Your task to perform on an android device: Search for pizza restaurants on Maps Image 0: 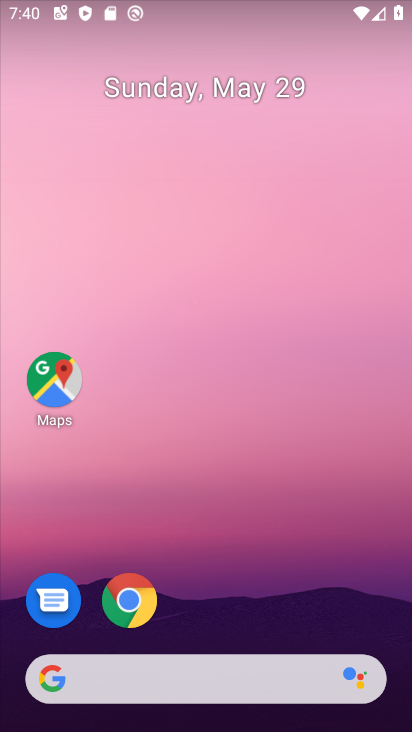
Step 0: click (69, 392)
Your task to perform on an android device: Search for pizza restaurants on Maps Image 1: 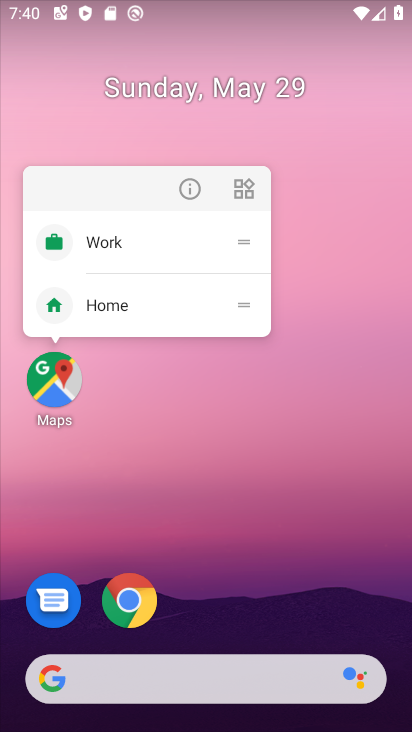
Step 1: click (76, 384)
Your task to perform on an android device: Search for pizza restaurants on Maps Image 2: 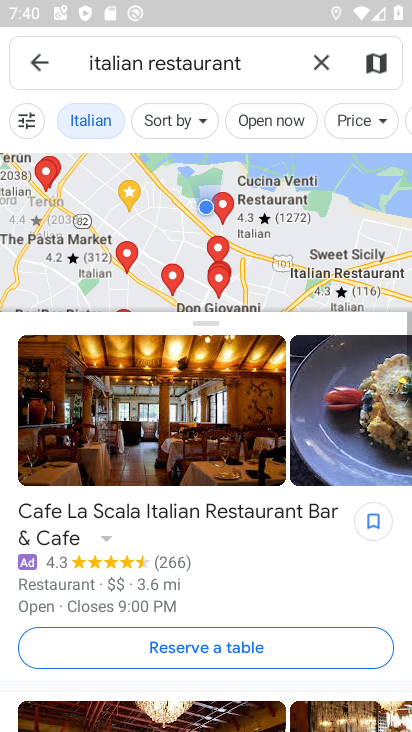
Step 2: click (322, 61)
Your task to perform on an android device: Search for pizza restaurants on Maps Image 3: 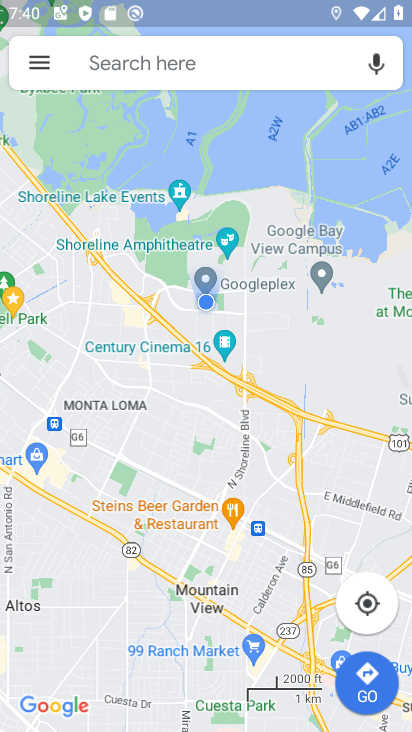
Step 3: click (223, 68)
Your task to perform on an android device: Search for pizza restaurants on Maps Image 4: 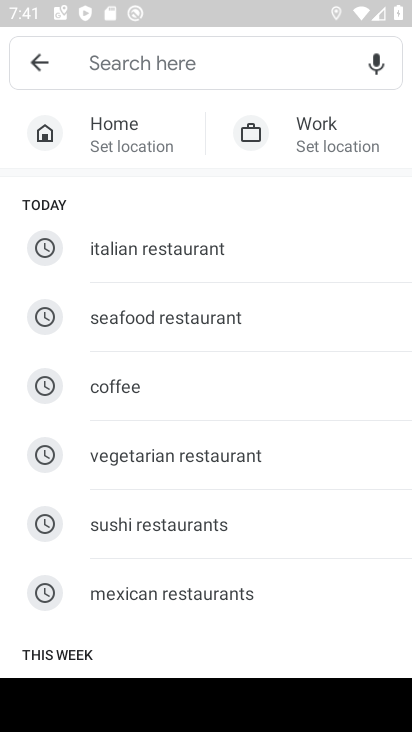
Step 4: type "Pizza restaurants"
Your task to perform on an android device: Search for pizza restaurants on Maps Image 5: 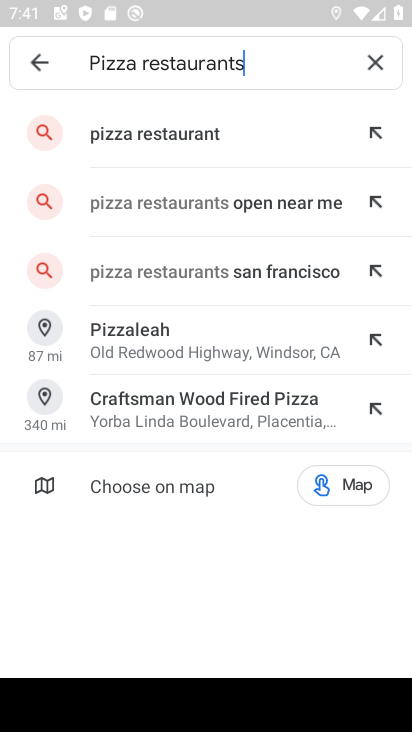
Step 5: click (208, 143)
Your task to perform on an android device: Search for pizza restaurants on Maps Image 6: 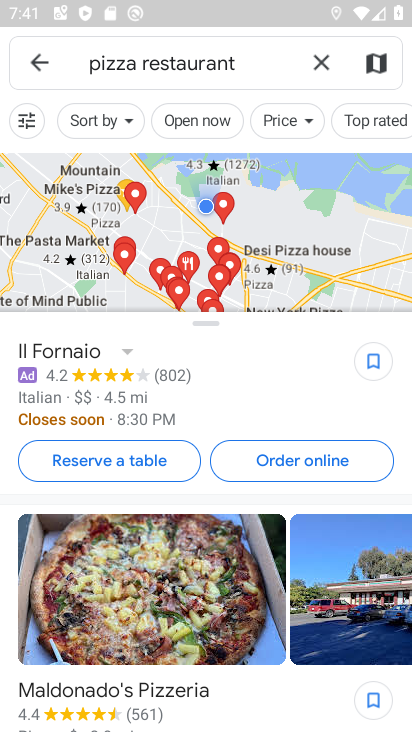
Step 6: task complete